Your task to perform on an android device: open app "Messenger Lite" (install if not already installed) Image 0: 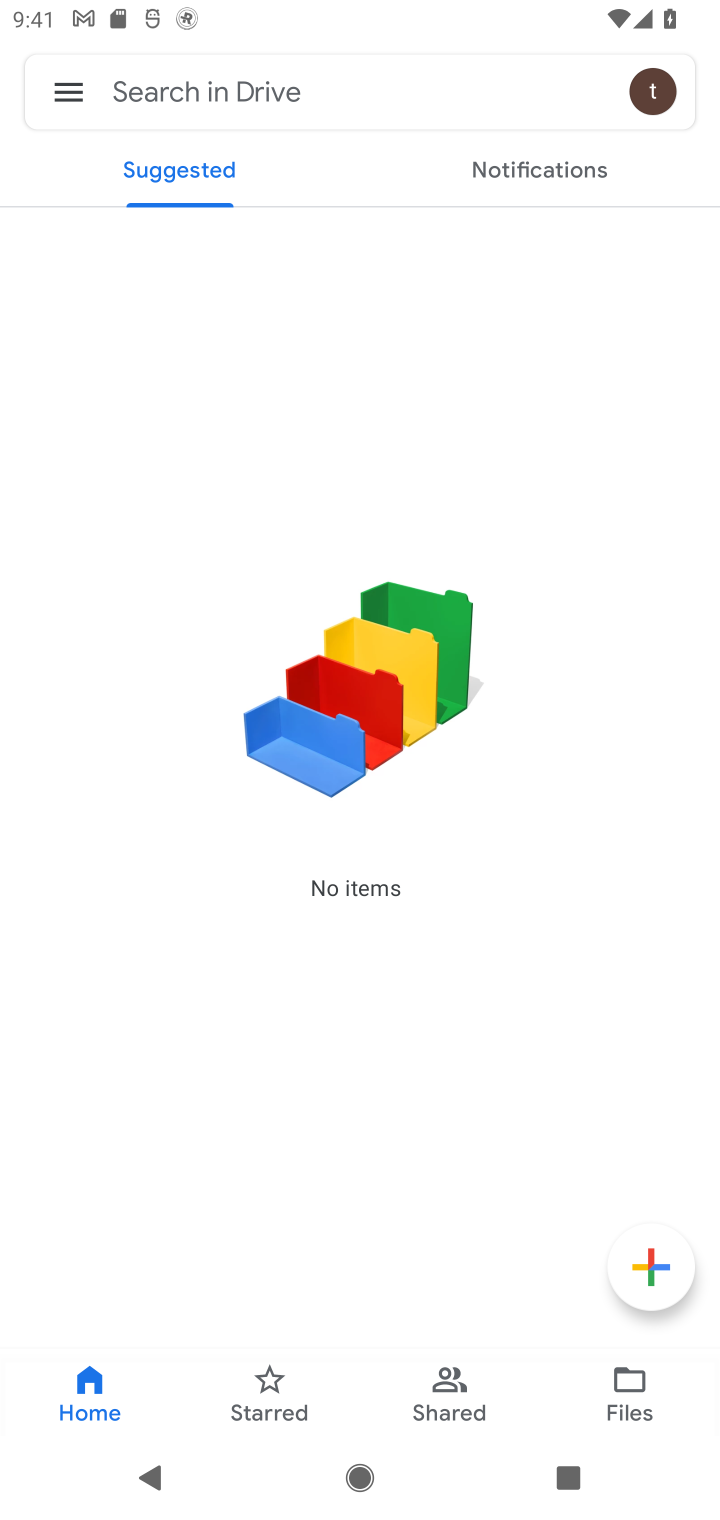
Step 0: press home button
Your task to perform on an android device: open app "Messenger Lite" (install if not already installed) Image 1: 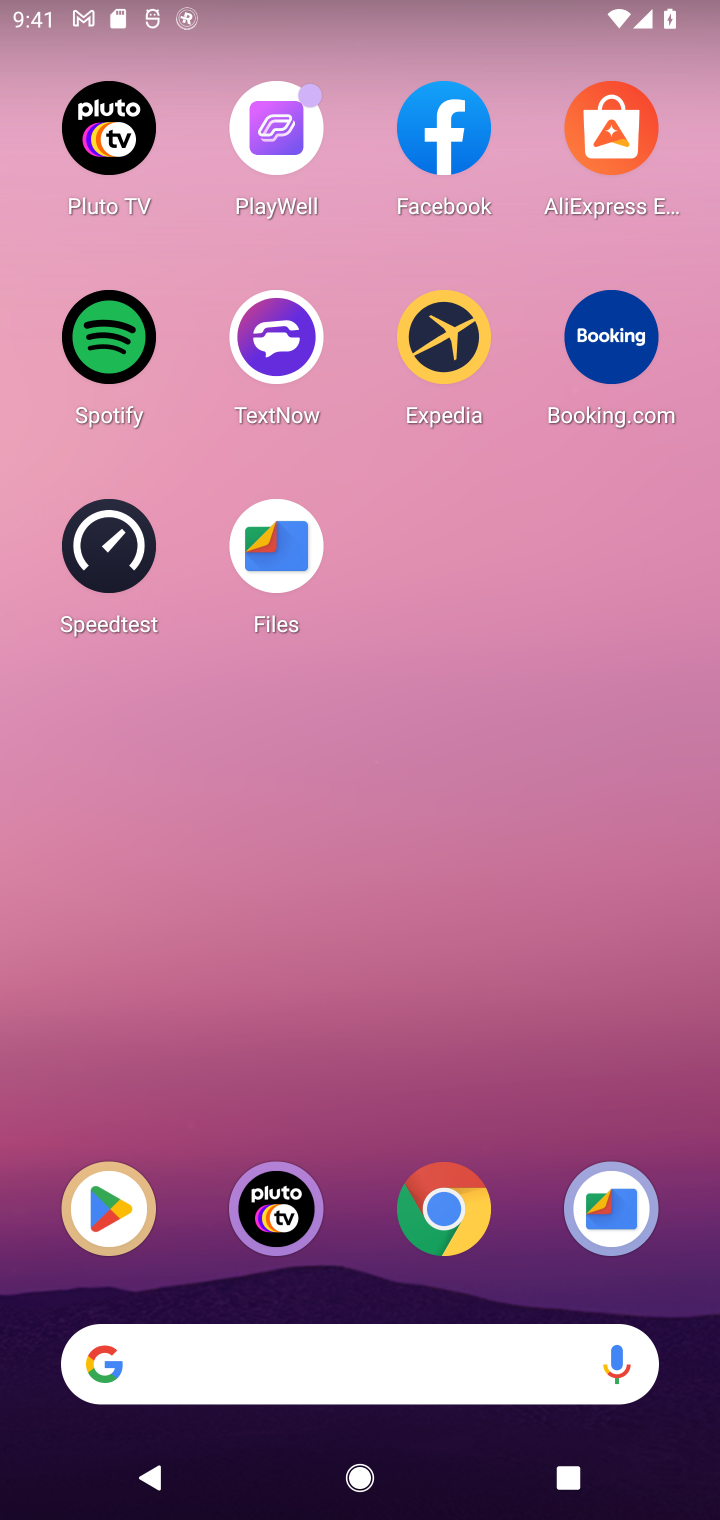
Step 1: drag from (310, 1374) to (331, 486)
Your task to perform on an android device: open app "Messenger Lite" (install if not already installed) Image 2: 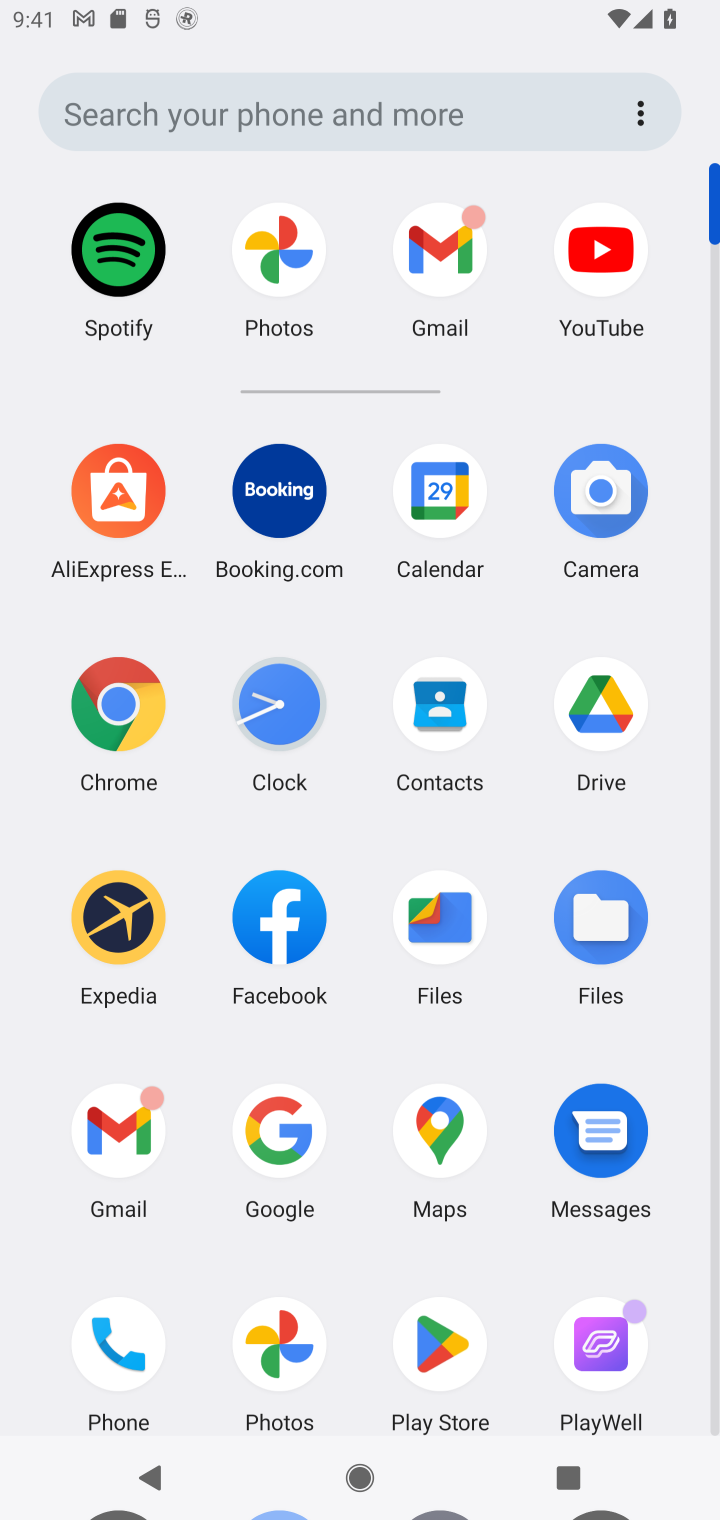
Step 2: drag from (323, 1245) to (356, 671)
Your task to perform on an android device: open app "Messenger Lite" (install if not already installed) Image 3: 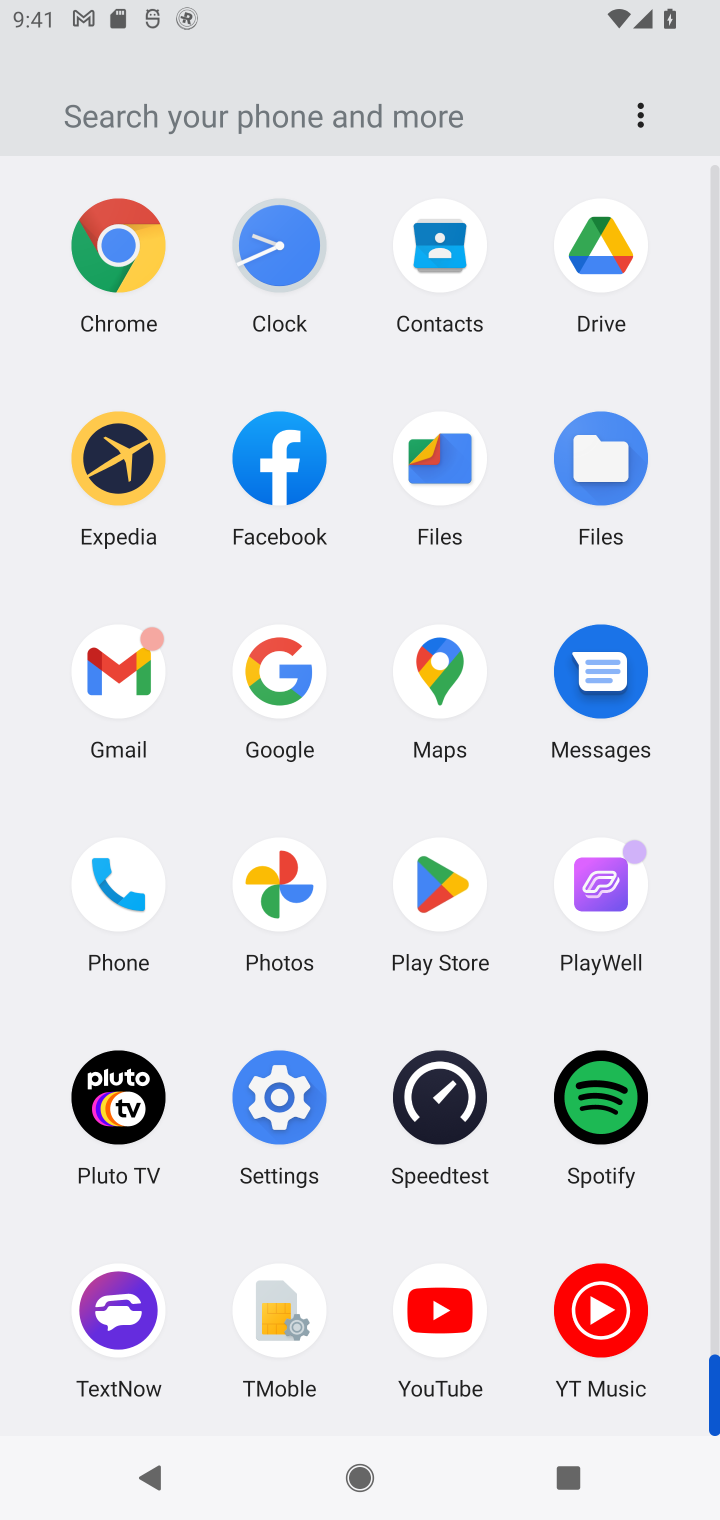
Step 3: click (442, 883)
Your task to perform on an android device: open app "Messenger Lite" (install if not already installed) Image 4: 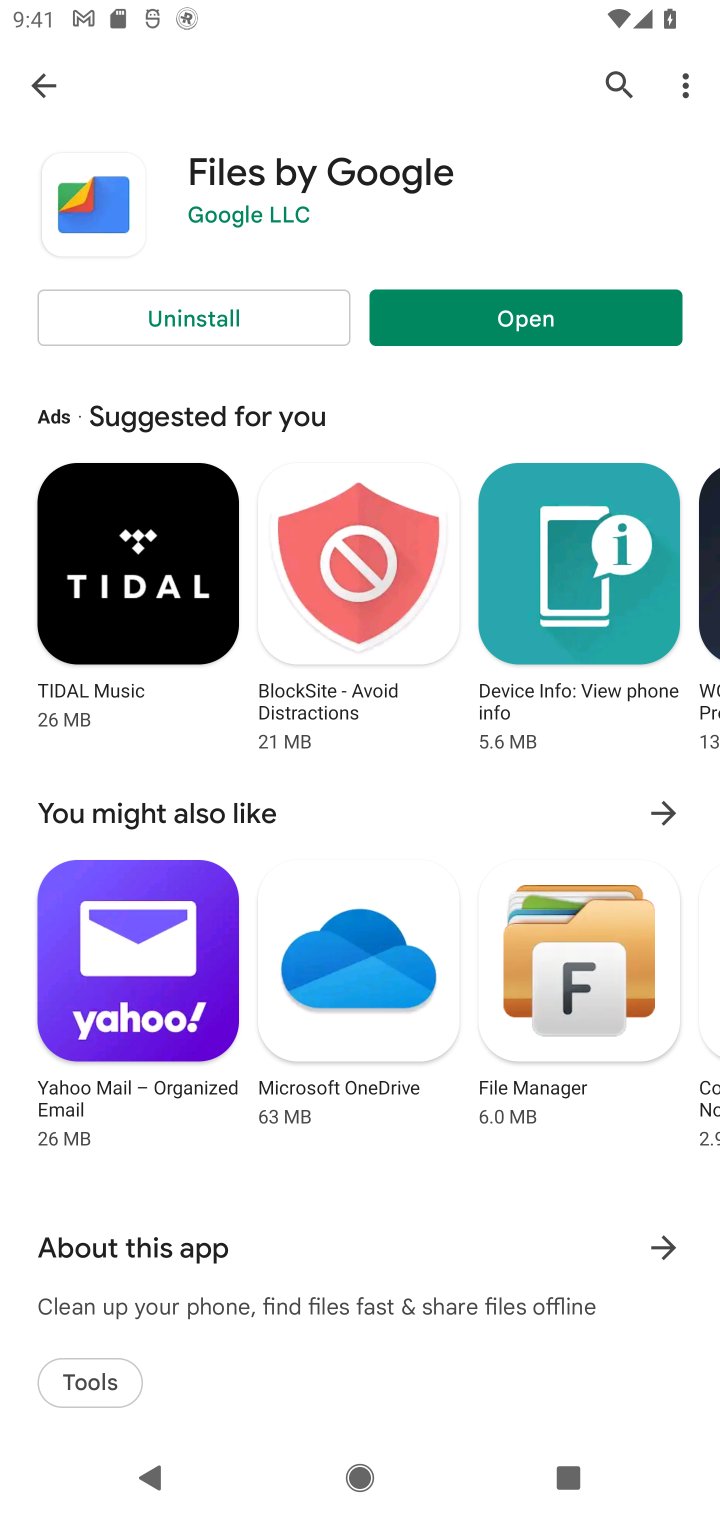
Step 4: click (600, 75)
Your task to perform on an android device: open app "Messenger Lite" (install if not already installed) Image 5: 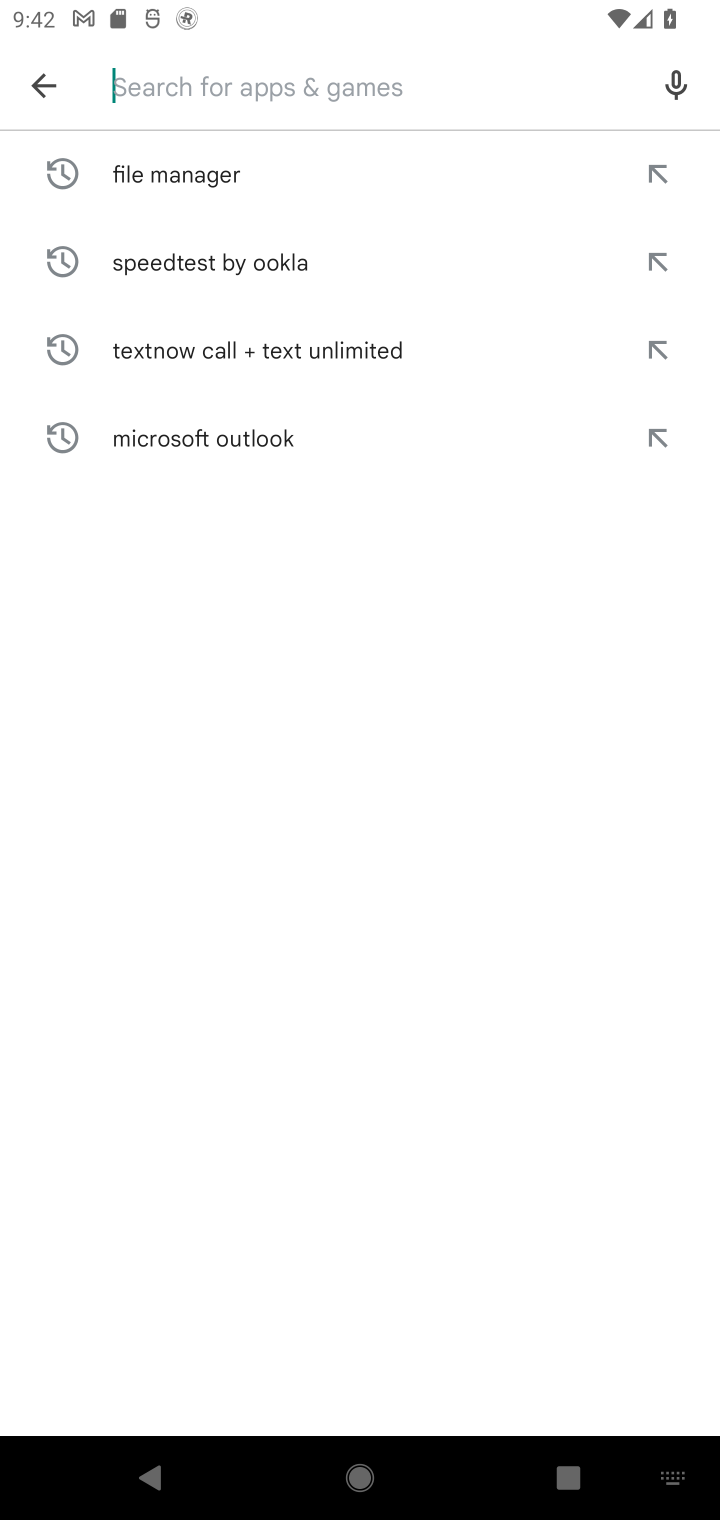
Step 5: type "Messenger Lite"
Your task to perform on an android device: open app "Messenger Lite" (install if not already installed) Image 6: 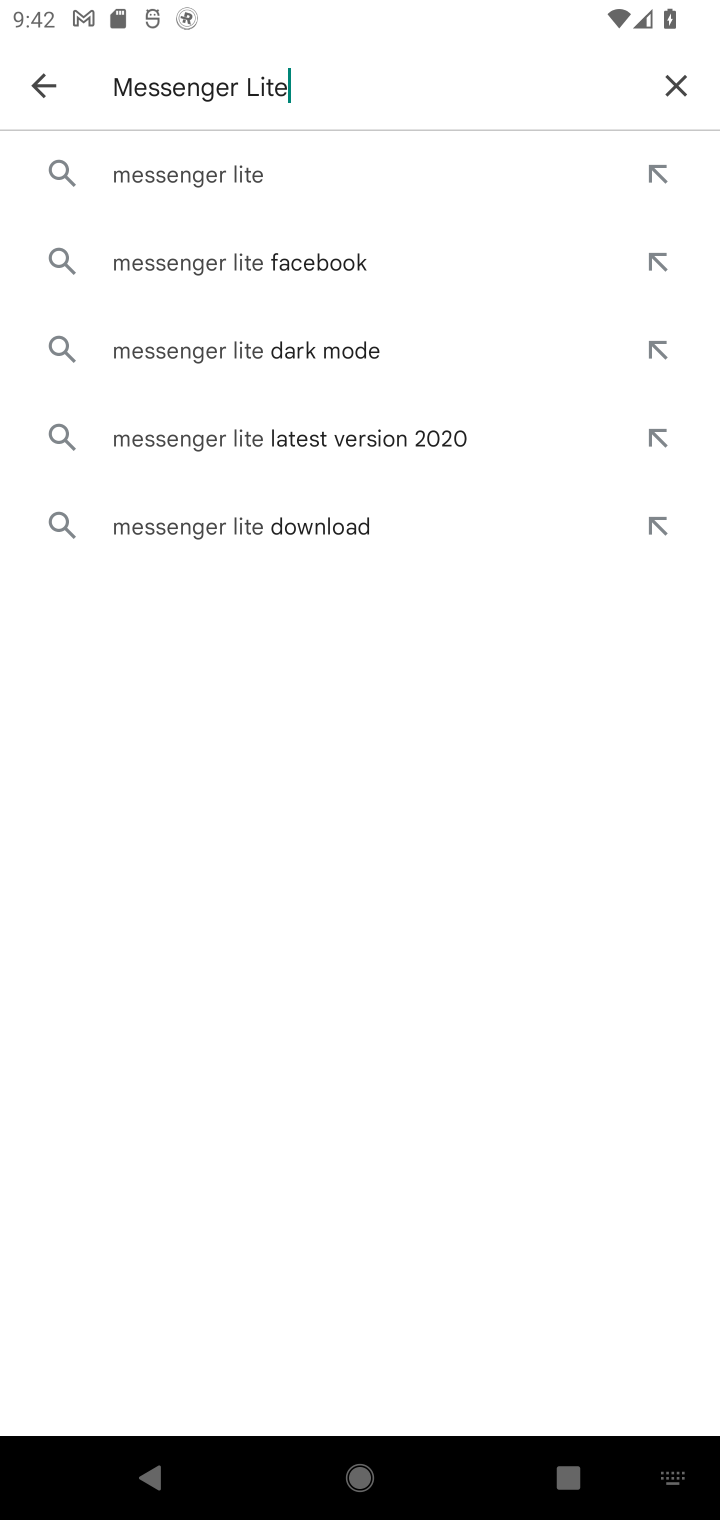
Step 6: click (235, 182)
Your task to perform on an android device: open app "Messenger Lite" (install if not already installed) Image 7: 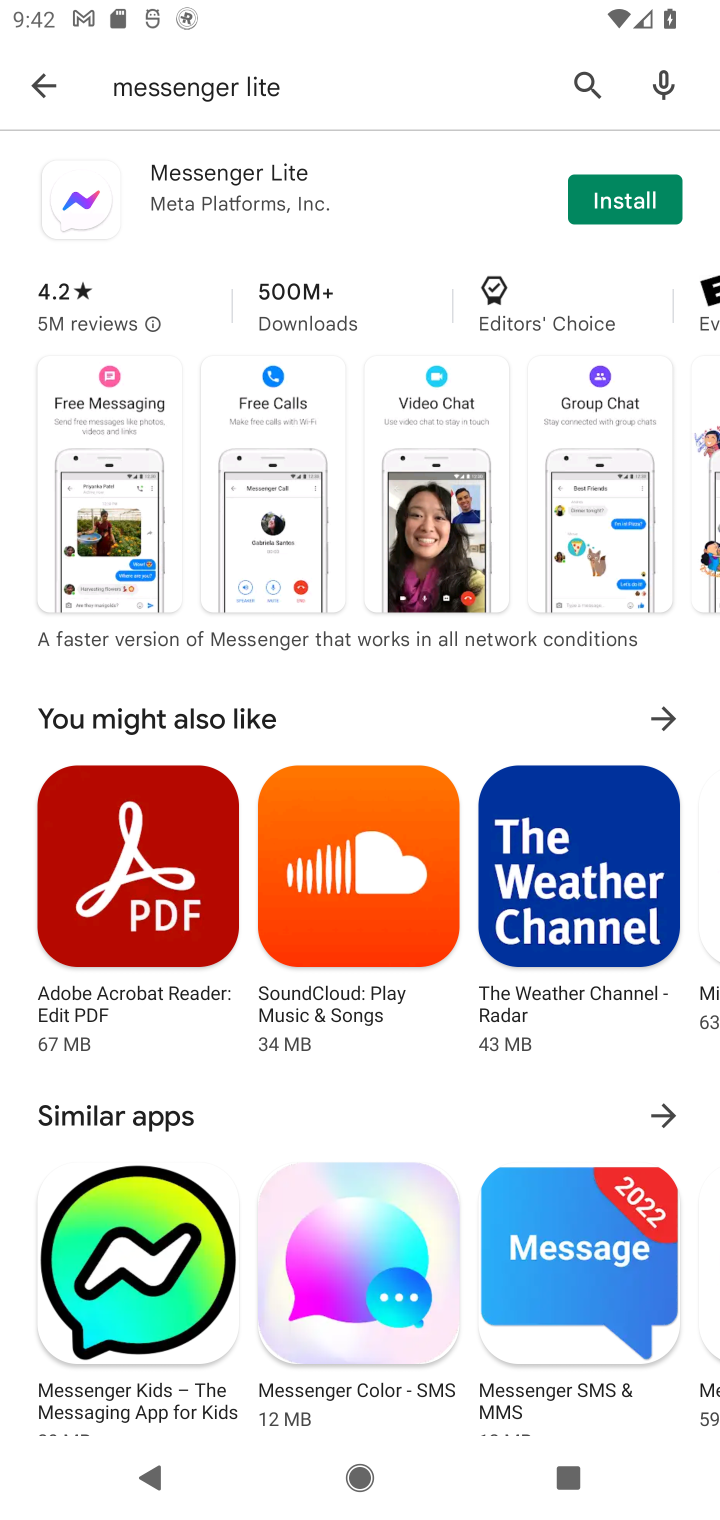
Step 7: click (631, 200)
Your task to perform on an android device: open app "Messenger Lite" (install if not already installed) Image 8: 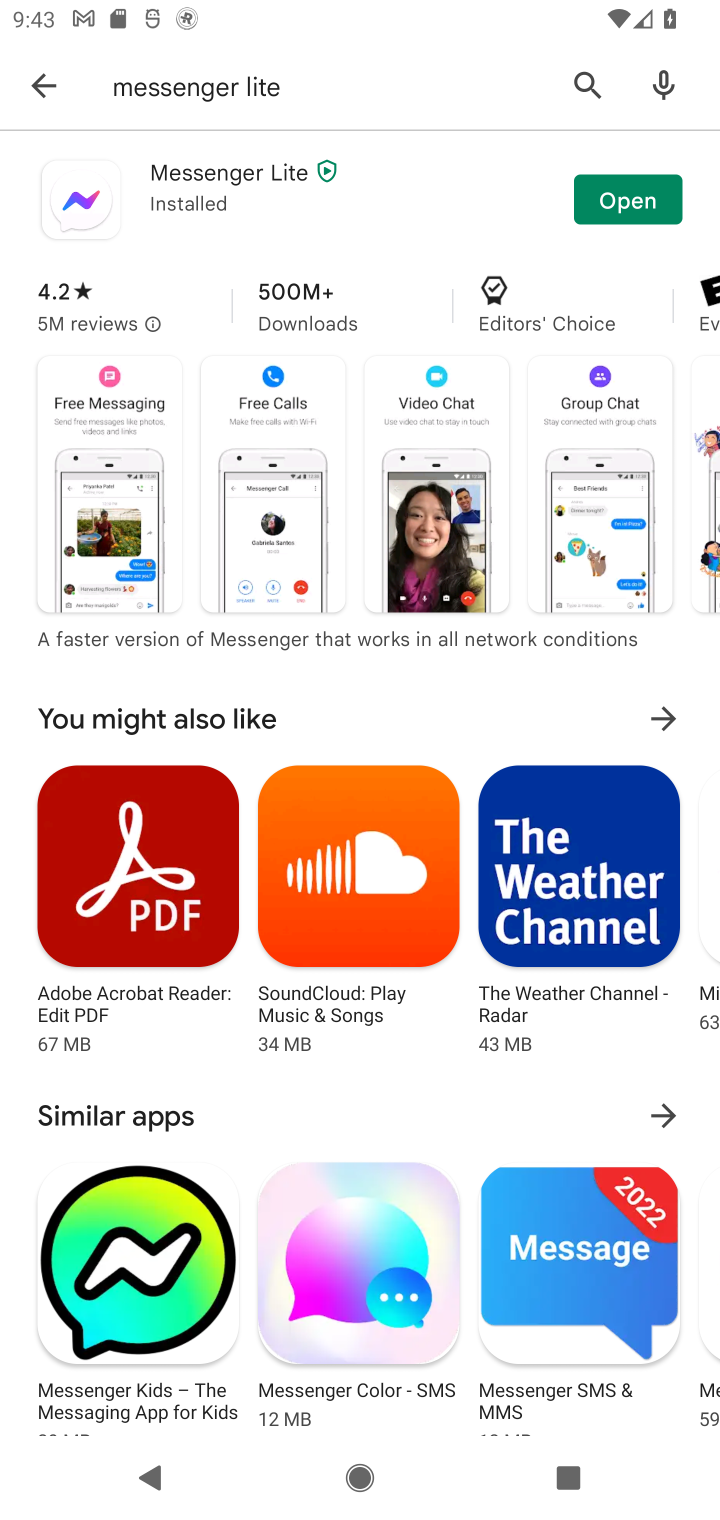
Step 8: click (625, 203)
Your task to perform on an android device: open app "Messenger Lite" (install if not already installed) Image 9: 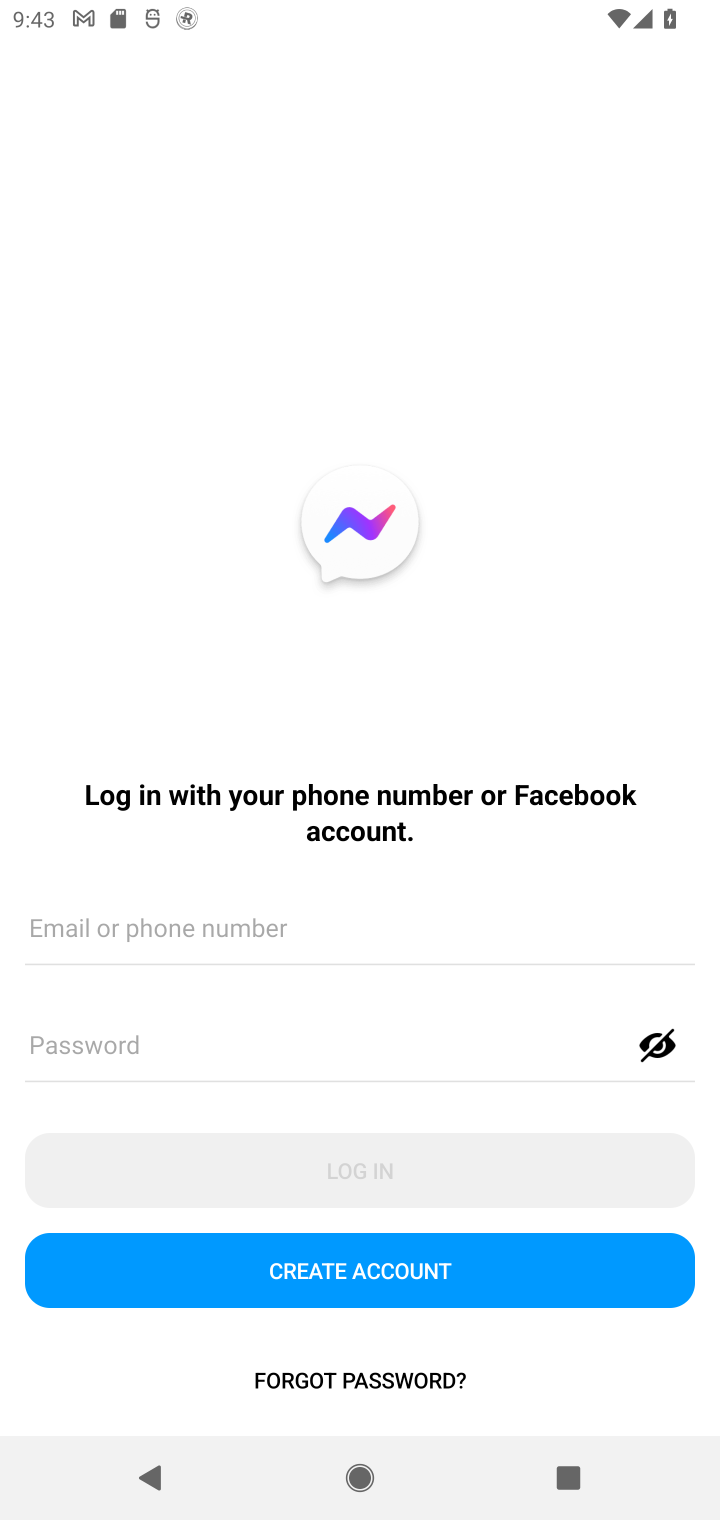
Step 9: task complete